Your task to perform on an android device: read, delete, or share a saved page in the chrome app Image 0: 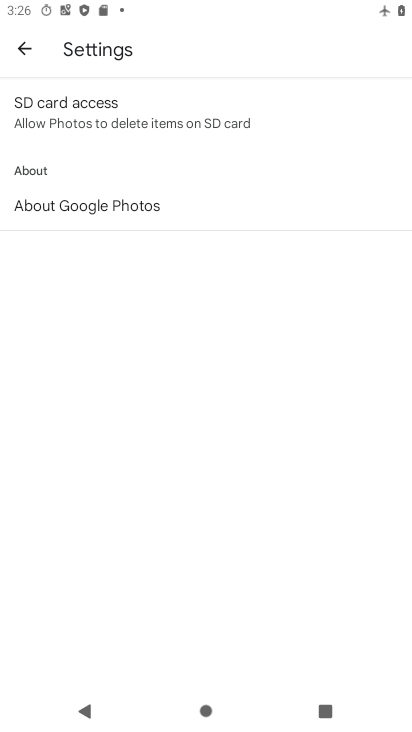
Step 0: press home button
Your task to perform on an android device: read, delete, or share a saved page in the chrome app Image 1: 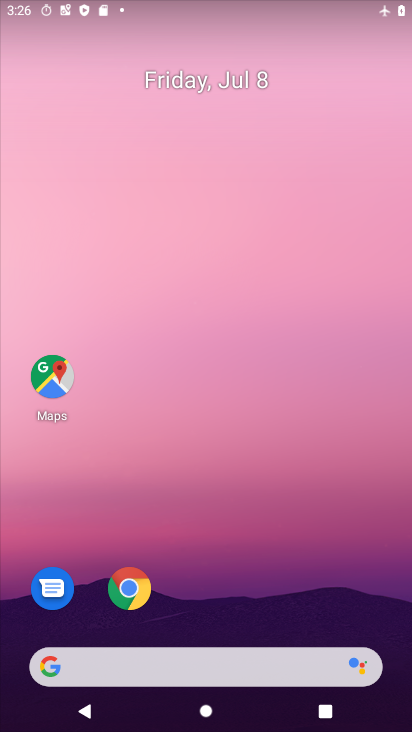
Step 1: drag from (261, 627) to (275, 111)
Your task to perform on an android device: read, delete, or share a saved page in the chrome app Image 2: 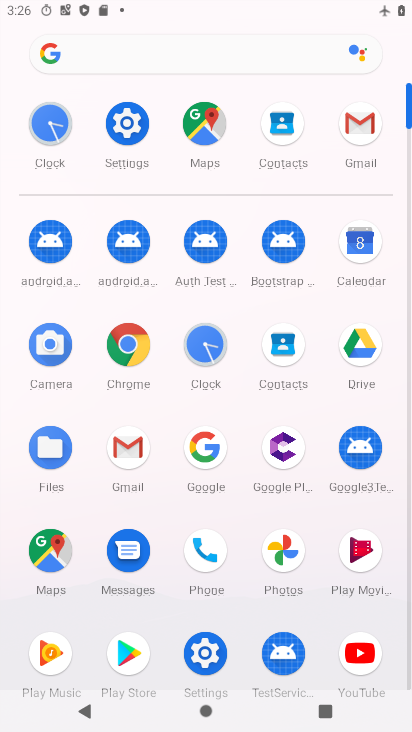
Step 2: click (132, 352)
Your task to perform on an android device: read, delete, or share a saved page in the chrome app Image 3: 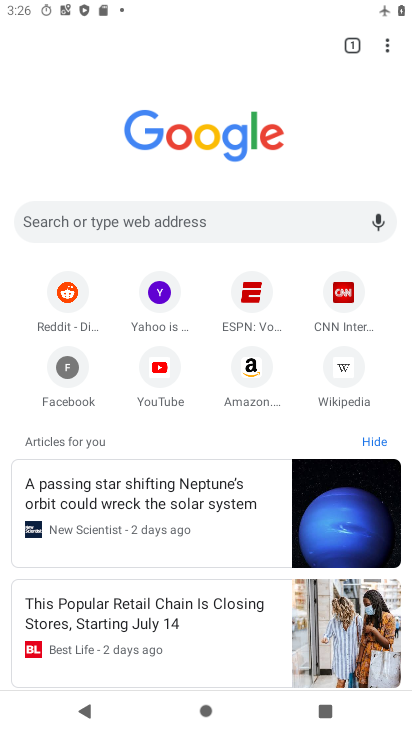
Step 3: drag from (388, 47) to (226, 300)
Your task to perform on an android device: read, delete, or share a saved page in the chrome app Image 4: 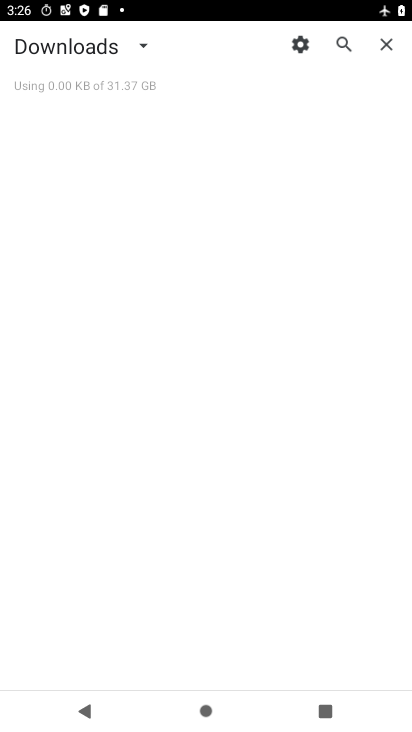
Step 4: click (145, 48)
Your task to perform on an android device: read, delete, or share a saved page in the chrome app Image 5: 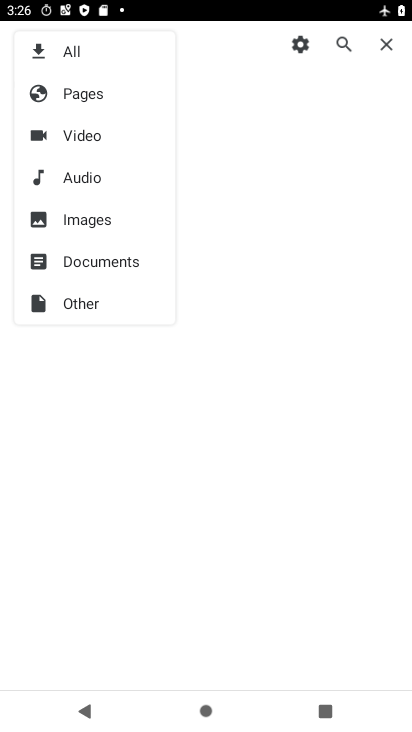
Step 5: click (80, 95)
Your task to perform on an android device: read, delete, or share a saved page in the chrome app Image 6: 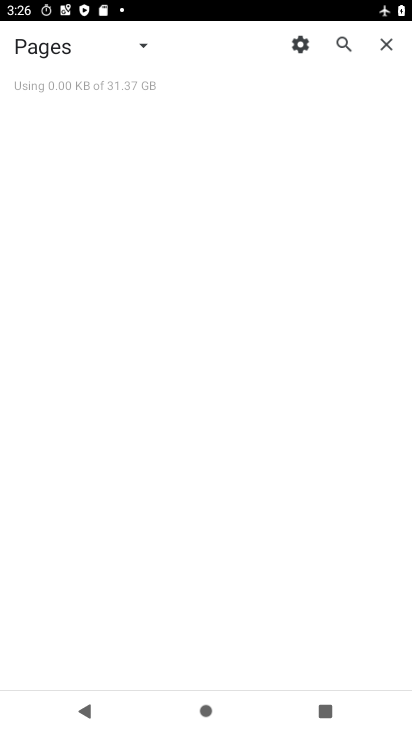
Step 6: task complete